Your task to perform on an android device: toggle priority inbox in the gmail app Image 0: 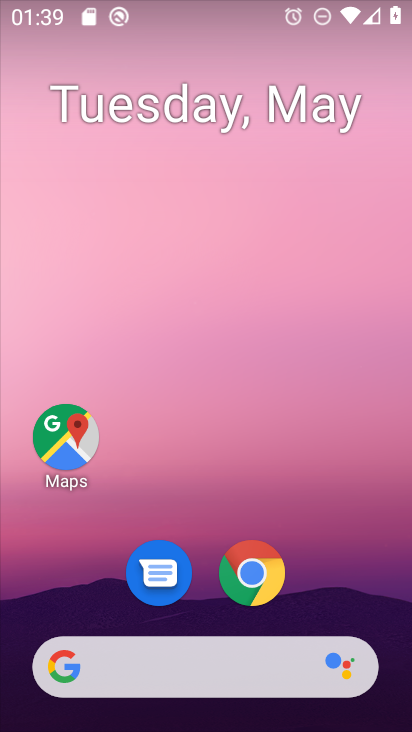
Step 0: drag from (128, 641) to (233, 167)
Your task to perform on an android device: toggle priority inbox in the gmail app Image 1: 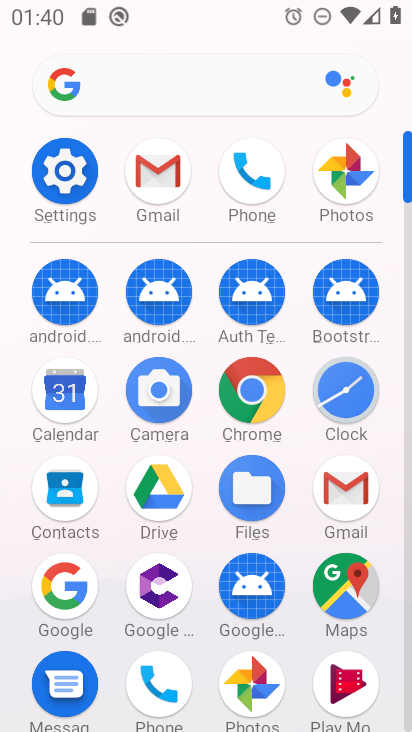
Step 1: click (145, 168)
Your task to perform on an android device: toggle priority inbox in the gmail app Image 2: 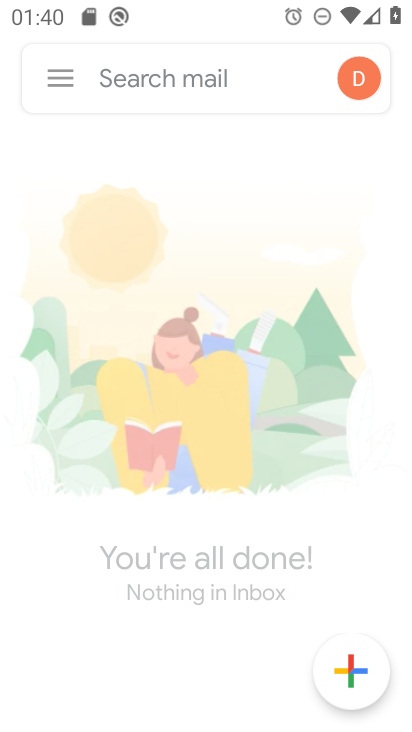
Step 2: click (56, 82)
Your task to perform on an android device: toggle priority inbox in the gmail app Image 3: 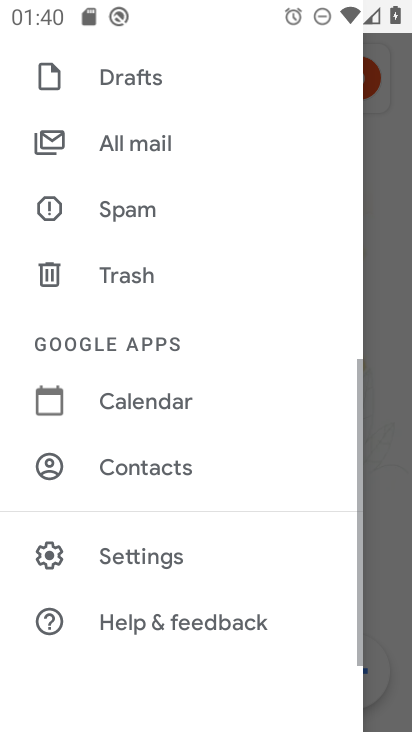
Step 3: click (171, 557)
Your task to perform on an android device: toggle priority inbox in the gmail app Image 4: 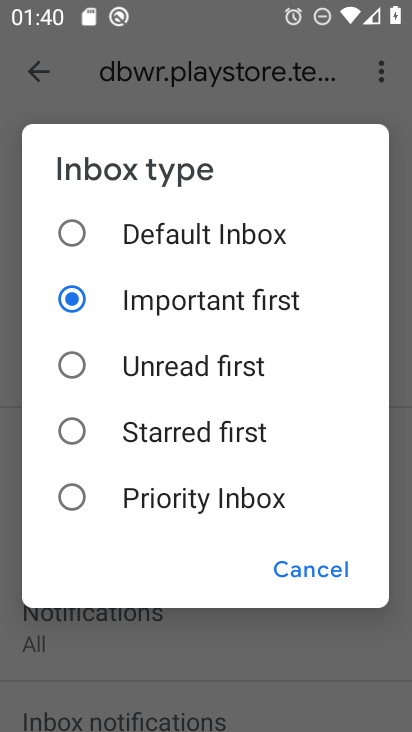
Step 4: click (186, 497)
Your task to perform on an android device: toggle priority inbox in the gmail app Image 5: 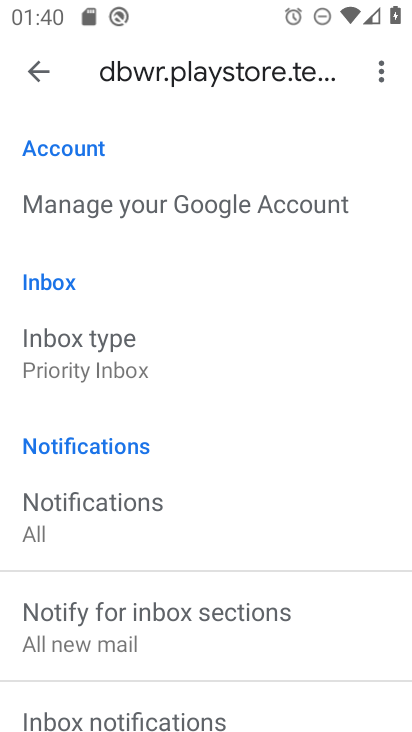
Step 5: task complete